Your task to perform on an android device: see tabs open on other devices in the chrome app Image 0: 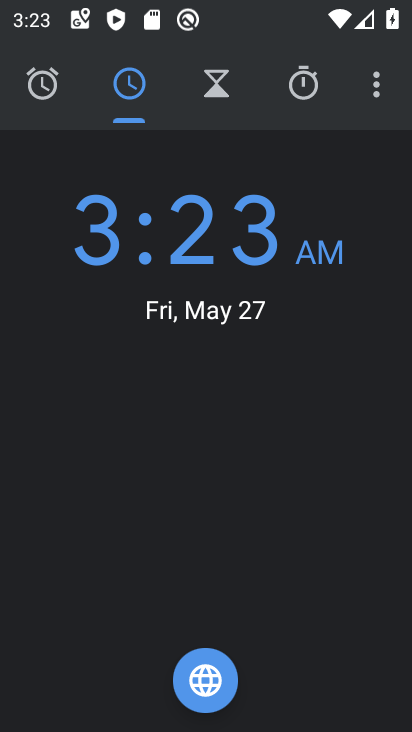
Step 0: press home button
Your task to perform on an android device: see tabs open on other devices in the chrome app Image 1: 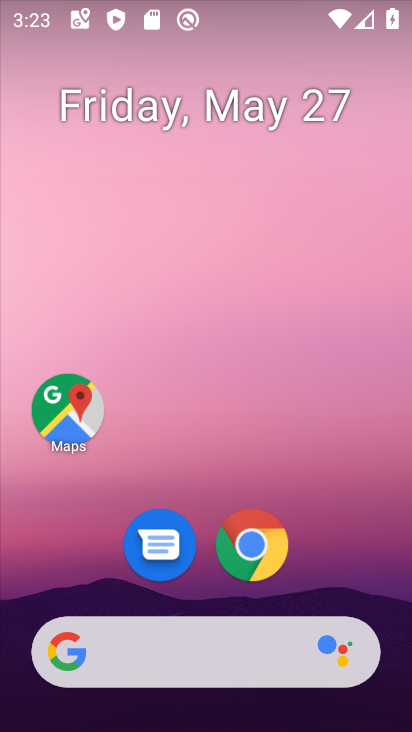
Step 1: click (252, 558)
Your task to perform on an android device: see tabs open on other devices in the chrome app Image 2: 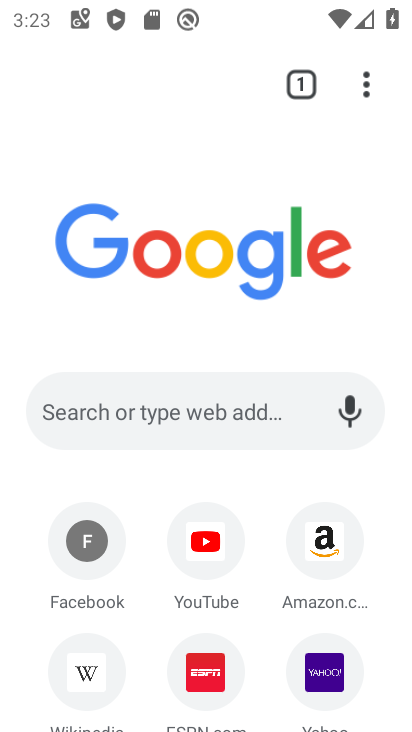
Step 2: task complete